Your task to perform on an android device: Open Amazon Image 0: 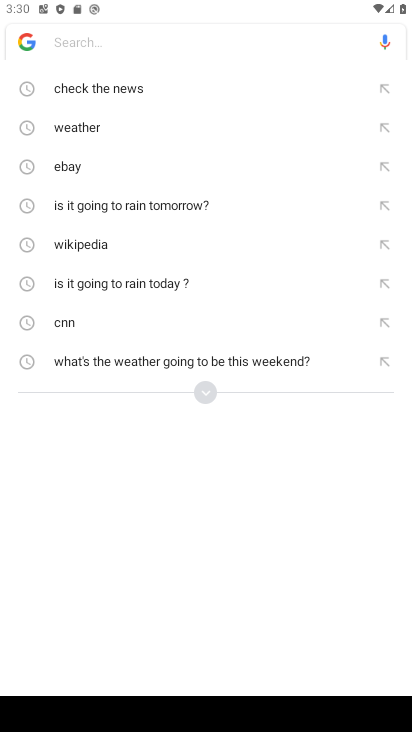
Step 0: press home button
Your task to perform on an android device: Open Amazon Image 1: 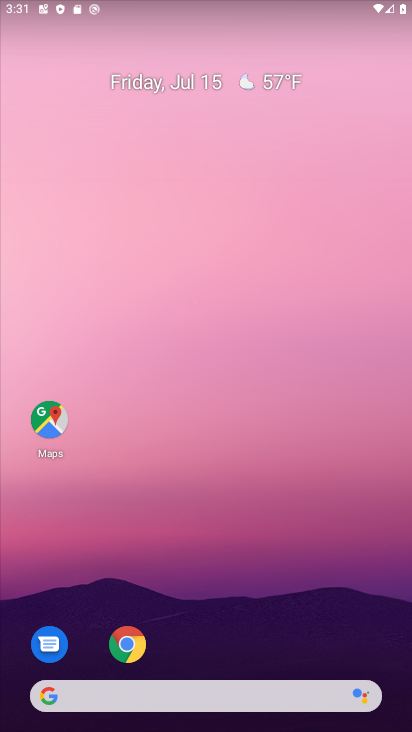
Step 1: click (137, 644)
Your task to perform on an android device: Open Amazon Image 2: 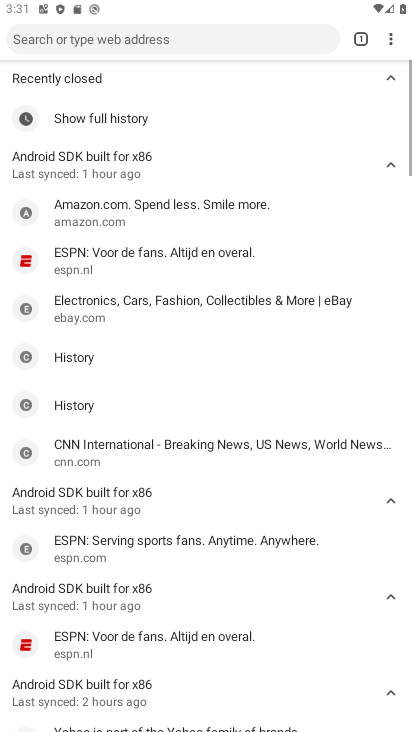
Step 2: click (360, 41)
Your task to perform on an android device: Open Amazon Image 3: 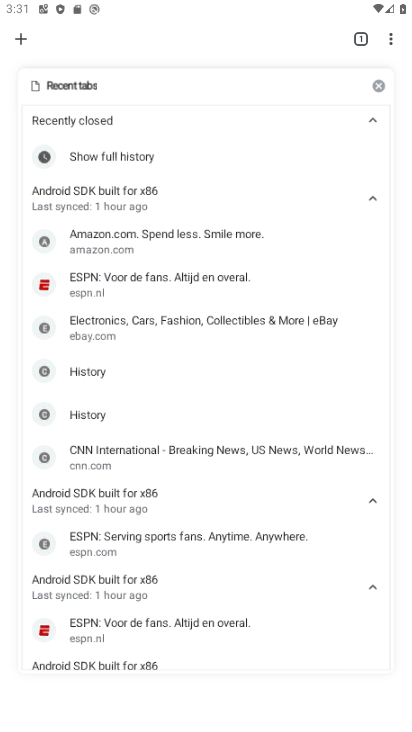
Step 3: click (21, 36)
Your task to perform on an android device: Open Amazon Image 4: 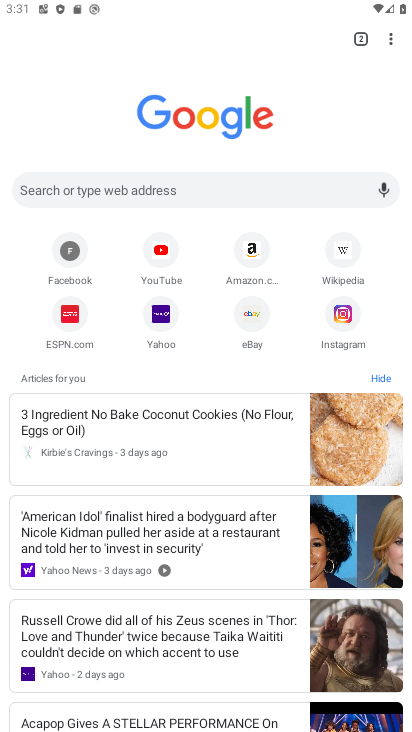
Step 4: click (255, 250)
Your task to perform on an android device: Open Amazon Image 5: 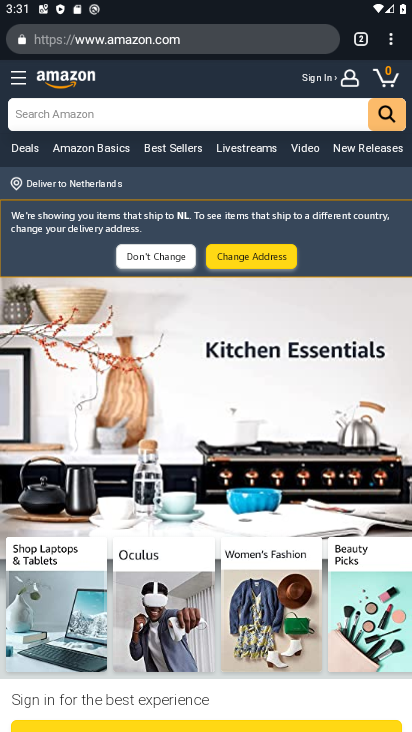
Step 5: task complete